Your task to perform on an android device: change the clock style Image 0: 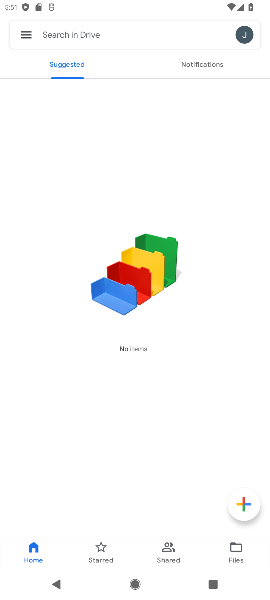
Step 0: press back button
Your task to perform on an android device: change the clock style Image 1: 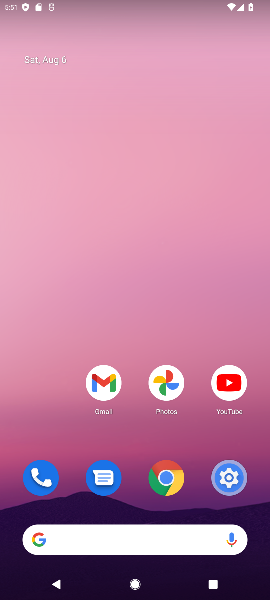
Step 1: drag from (129, 424) to (129, 91)
Your task to perform on an android device: change the clock style Image 2: 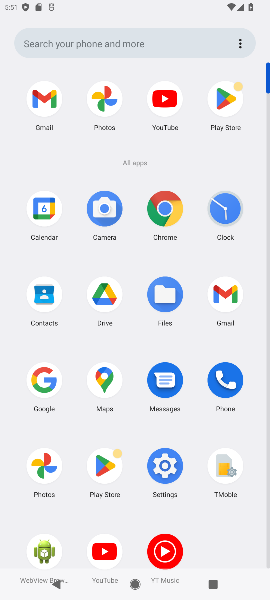
Step 2: click (217, 206)
Your task to perform on an android device: change the clock style Image 3: 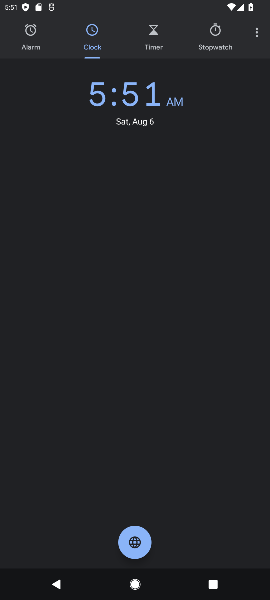
Step 3: click (253, 36)
Your task to perform on an android device: change the clock style Image 4: 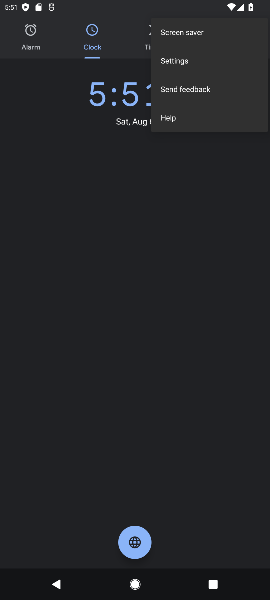
Step 4: click (180, 58)
Your task to perform on an android device: change the clock style Image 5: 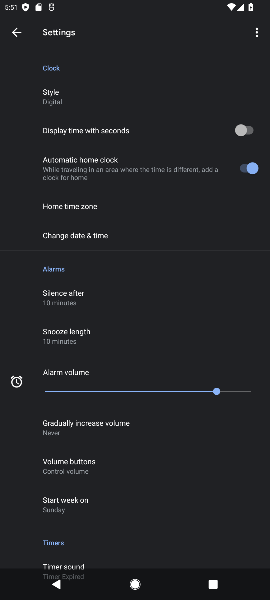
Step 5: click (57, 101)
Your task to perform on an android device: change the clock style Image 6: 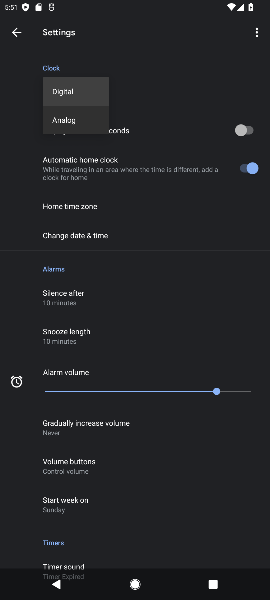
Step 6: click (77, 126)
Your task to perform on an android device: change the clock style Image 7: 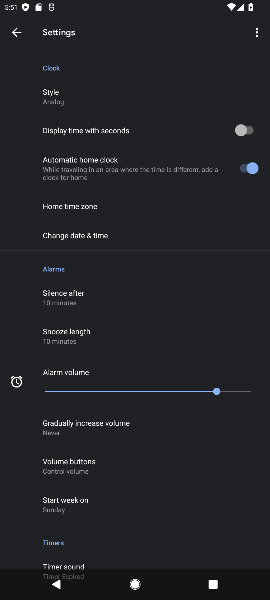
Step 7: task complete